Your task to perform on an android device: move an email to a new category in the gmail app Image 0: 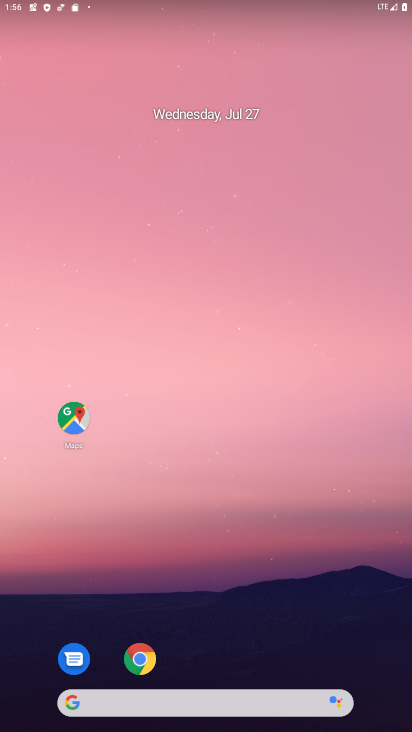
Step 0: drag from (210, 716) to (217, 77)
Your task to perform on an android device: move an email to a new category in the gmail app Image 1: 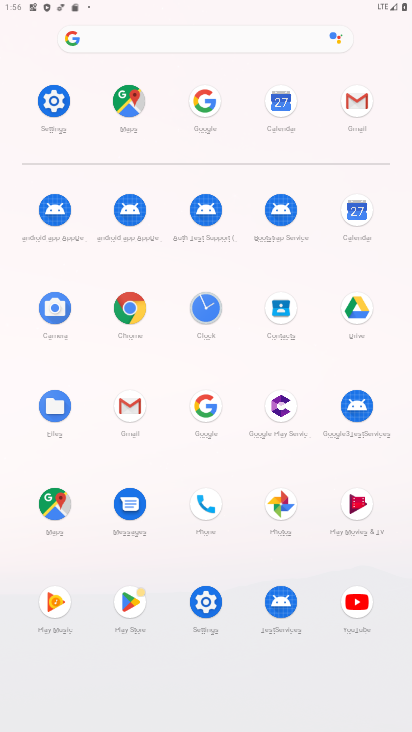
Step 1: click (132, 410)
Your task to perform on an android device: move an email to a new category in the gmail app Image 2: 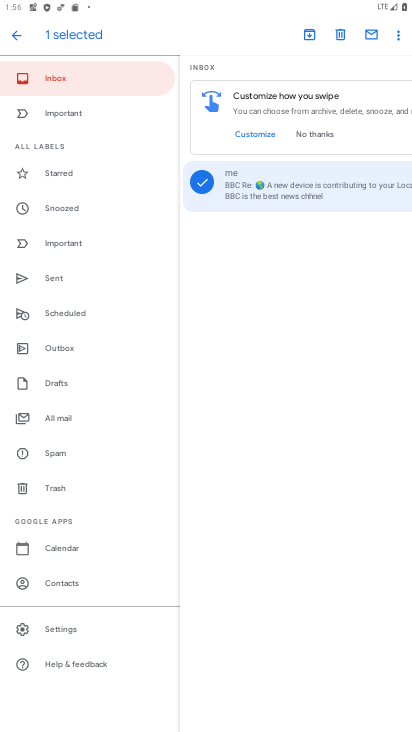
Step 2: click (399, 39)
Your task to perform on an android device: move an email to a new category in the gmail app Image 3: 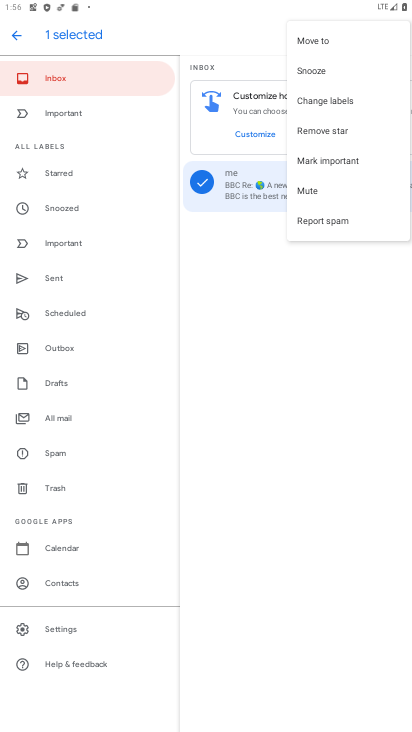
Step 3: click (318, 38)
Your task to perform on an android device: move an email to a new category in the gmail app Image 4: 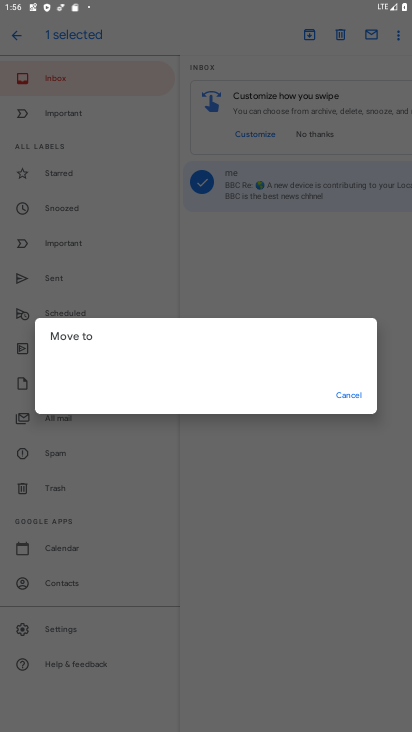
Step 4: task complete